Your task to perform on an android device: Do I have any events tomorrow? Image 0: 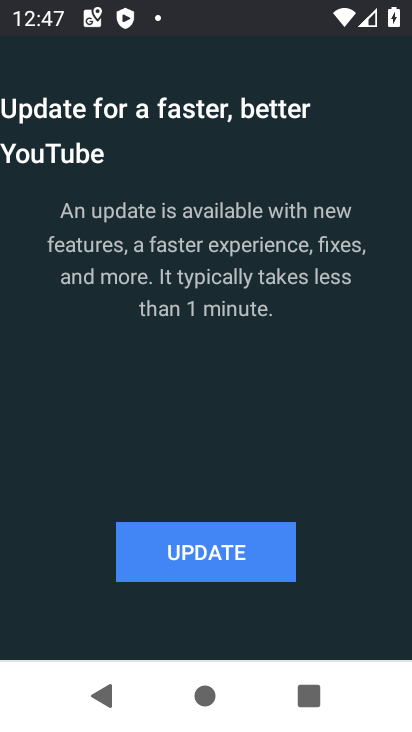
Step 0: press home button
Your task to perform on an android device: Do I have any events tomorrow? Image 1: 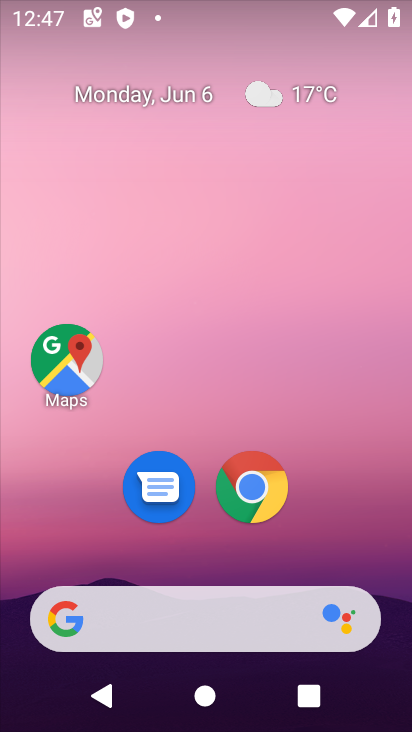
Step 1: drag from (207, 571) to (239, 11)
Your task to perform on an android device: Do I have any events tomorrow? Image 2: 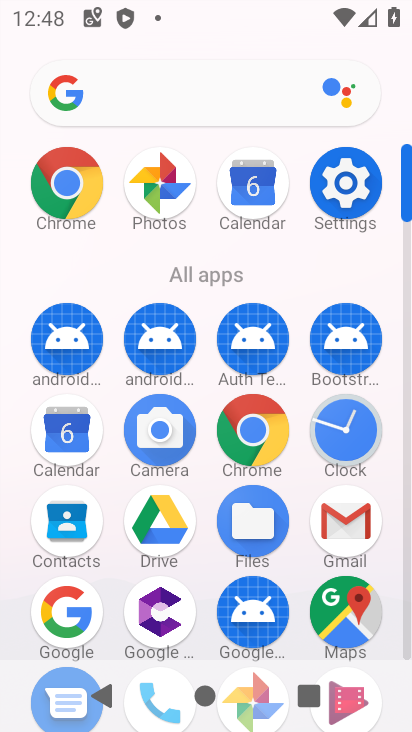
Step 2: click (82, 437)
Your task to perform on an android device: Do I have any events tomorrow? Image 3: 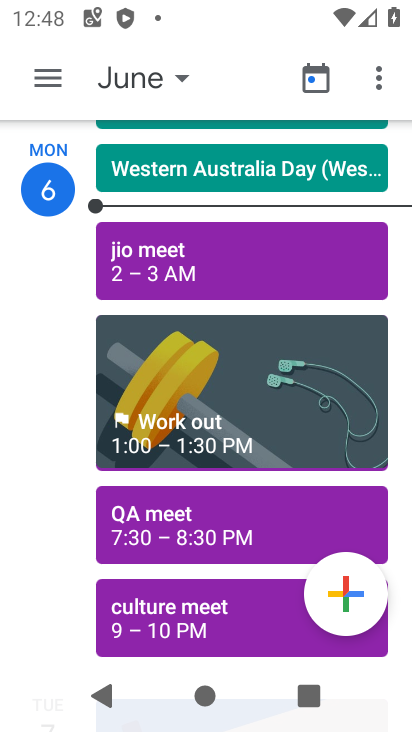
Step 3: drag from (231, 532) to (228, 97)
Your task to perform on an android device: Do I have any events tomorrow? Image 4: 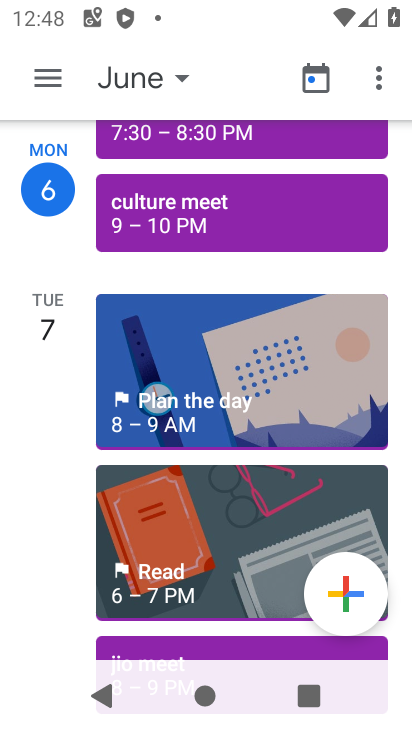
Step 4: drag from (192, 546) to (254, 138)
Your task to perform on an android device: Do I have any events tomorrow? Image 5: 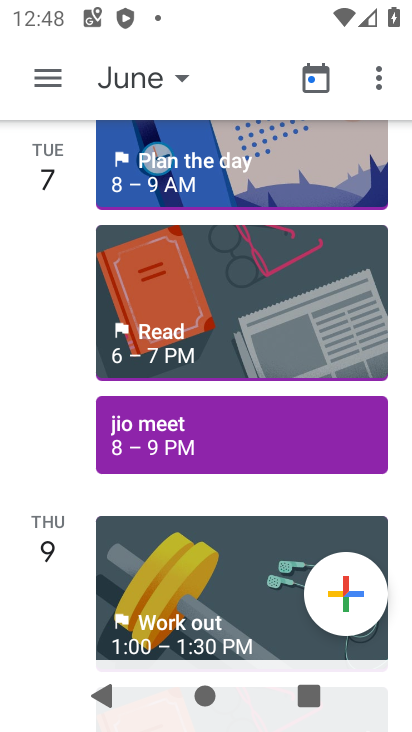
Step 5: click (225, 421)
Your task to perform on an android device: Do I have any events tomorrow? Image 6: 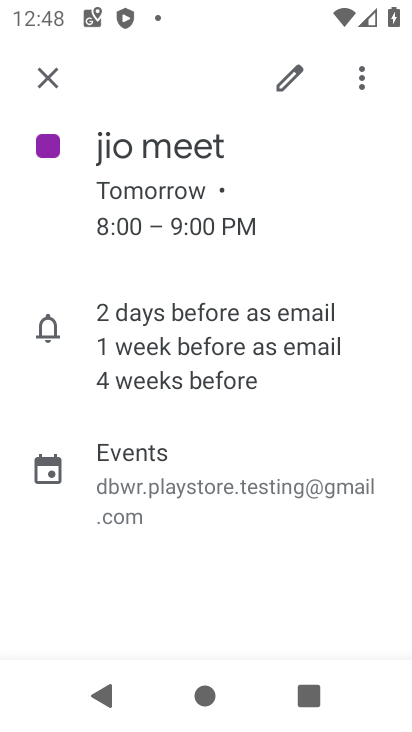
Step 6: task complete